Your task to perform on an android device: Open the phone app and click the voicemail tab. Image 0: 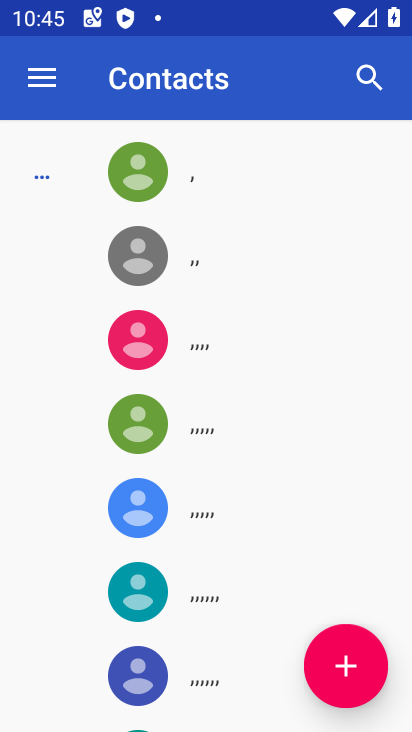
Step 0: press back button
Your task to perform on an android device: Open the phone app and click the voicemail tab. Image 1: 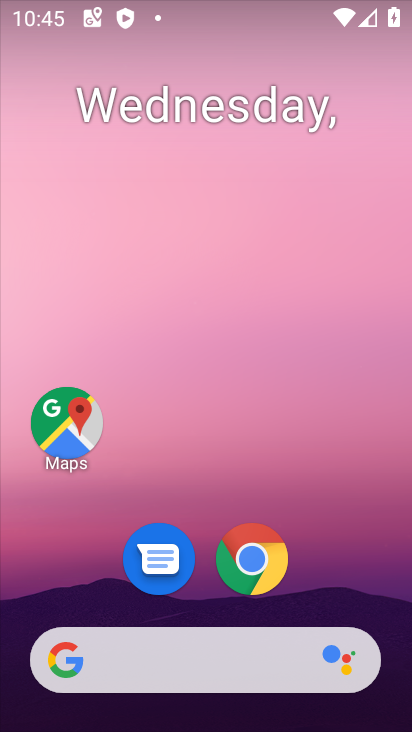
Step 1: drag from (323, 577) to (165, 77)
Your task to perform on an android device: Open the phone app and click the voicemail tab. Image 2: 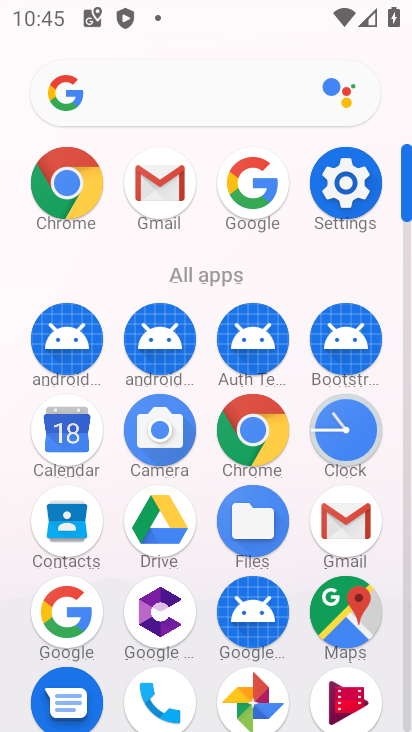
Step 2: drag from (205, 490) to (195, 261)
Your task to perform on an android device: Open the phone app and click the voicemail tab. Image 3: 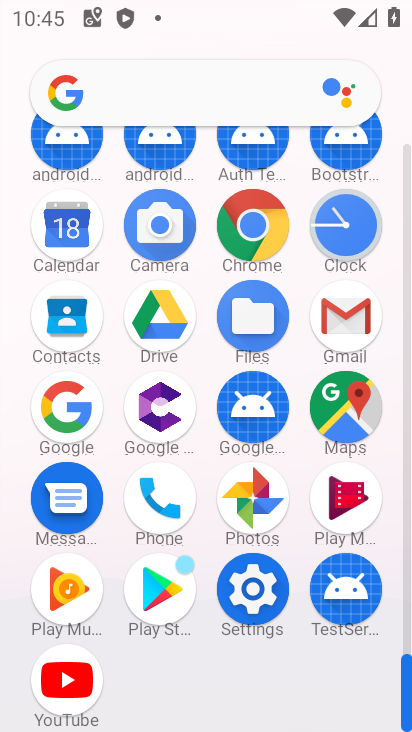
Step 3: click (154, 506)
Your task to perform on an android device: Open the phone app and click the voicemail tab. Image 4: 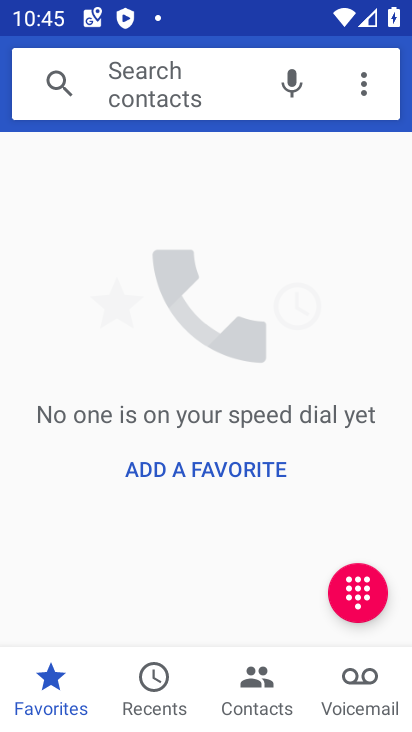
Step 4: click (358, 676)
Your task to perform on an android device: Open the phone app and click the voicemail tab. Image 5: 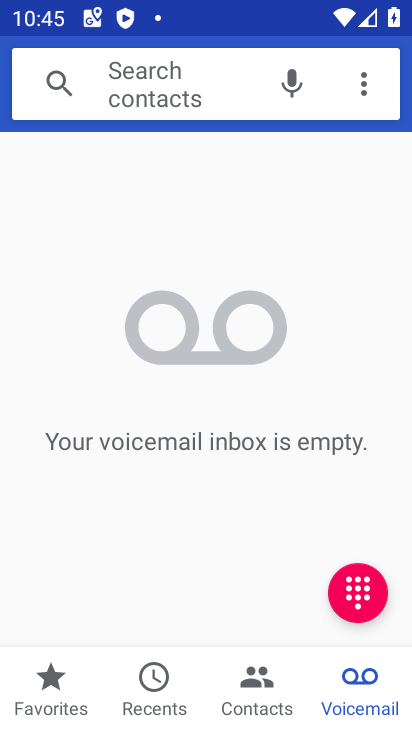
Step 5: task complete